Your task to perform on an android device: Open the calendar and show me this week's events? Image 0: 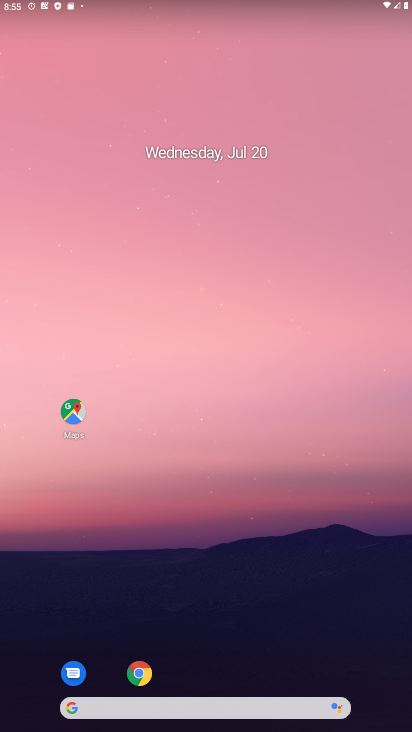
Step 0: drag from (384, 632) to (116, 74)
Your task to perform on an android device: Open the calendar and show me this week's events? Image 1: 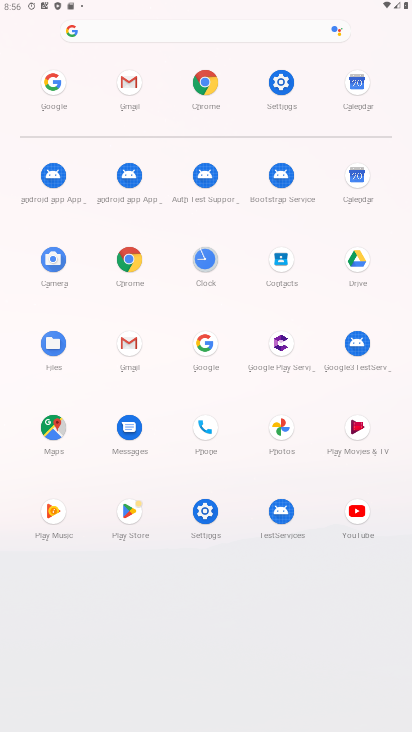
Step 1: click (364, 181)
Your task to perform on an android device: Open the calendar and show me this week's events? Image 2: 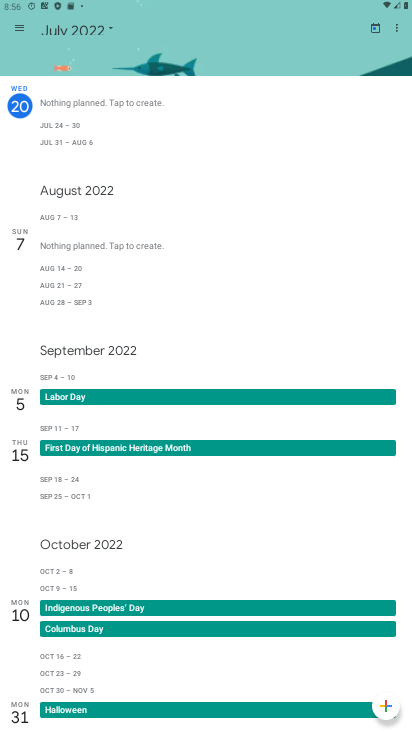
Step 2: task complete